Your task to perform on an android device: turn smart compose on in the gmail app Image 0: 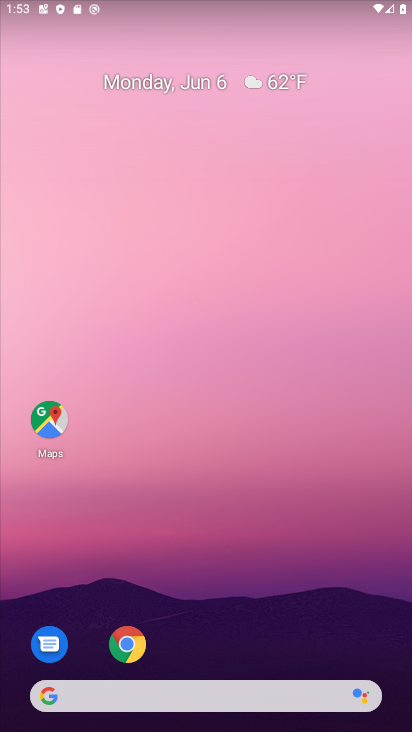
Step 0: press home button
Your task to perform on an android device: turn smart compose on in the gmail app Image 1: 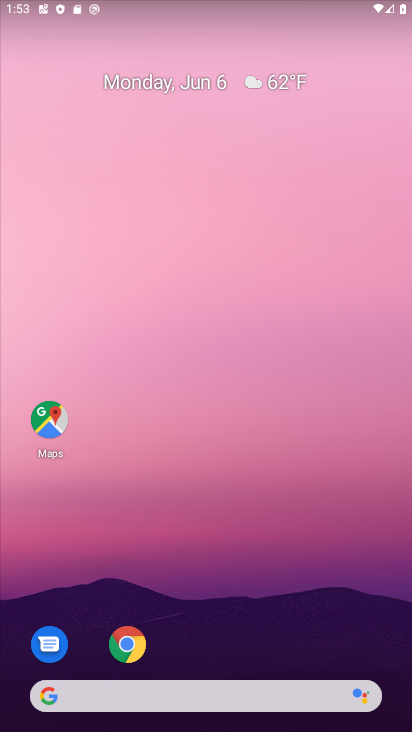
Step 1: drag from (113, 712) to (101, 33)
Your task to perform on an android device: turn smart compose on in the gmail app Image 2: 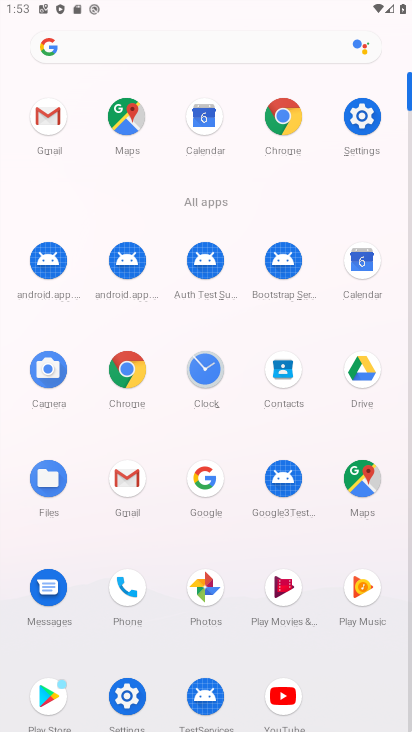
Step 2: click (123, 475)
Your task to perform on an android device: turn smart compose on in the gmail app Image 3: 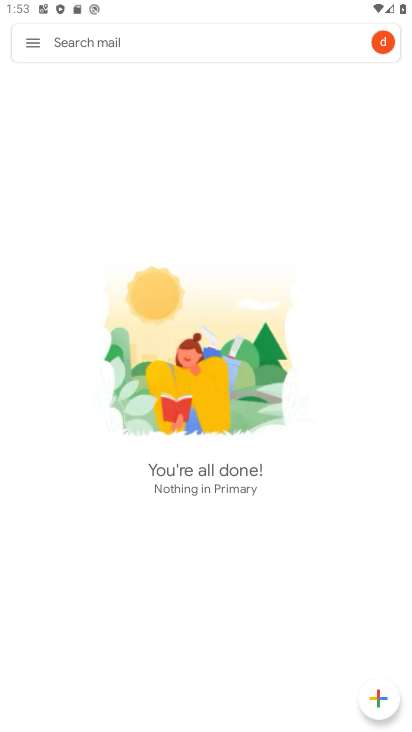
Step 3: click (28, 36)
Your task to perform on an android device: turn smart compose on in the gmail app Image 4: 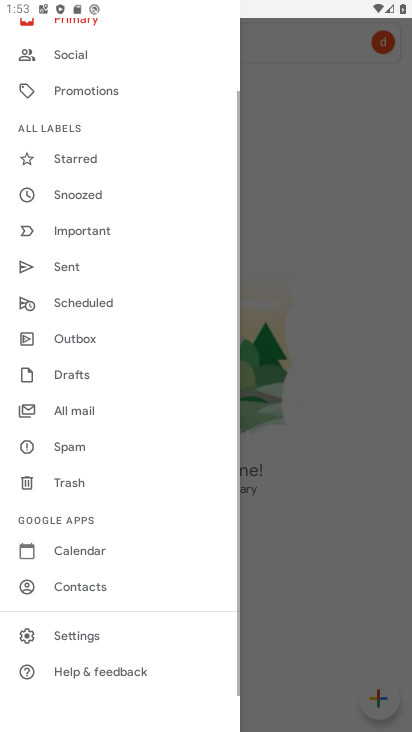
Step 4: click (88, 641)
Your task to perform on an android device: turn smart compose on in the gmail app Image 5: 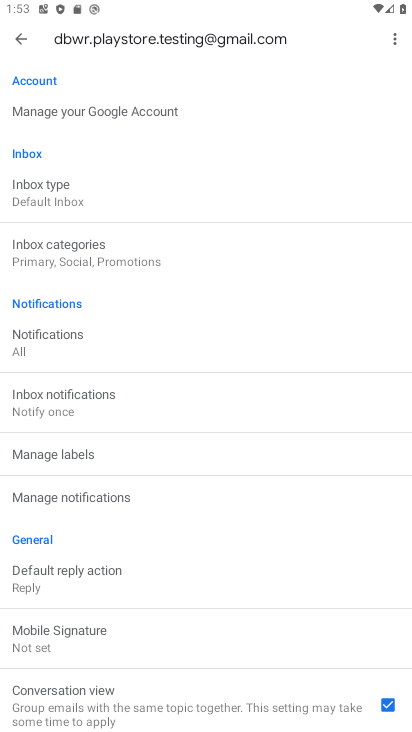
Step 5: task complete